Your task to perform on an android device: Open my contact list Image 0: 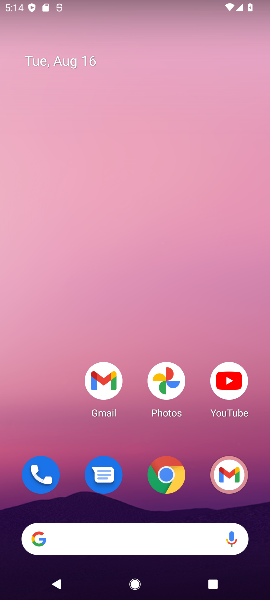
Step 0: drag from (204, 471) to (74, 40)
Your task to perform on an android device: Open my contact list Image 1: 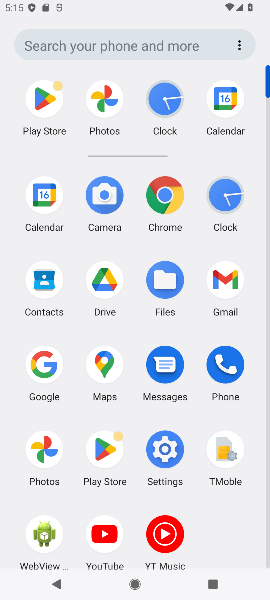
Step 1: click (29, 285)
Your task to perform on an android device: Open my contact list Image 2: 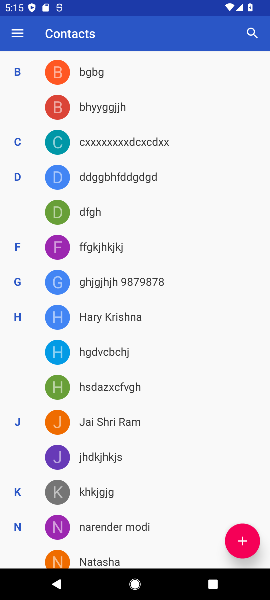
Step 2: task complete